Your task to perform on an android device: Open calendar and show me the second week of next month Image 0: 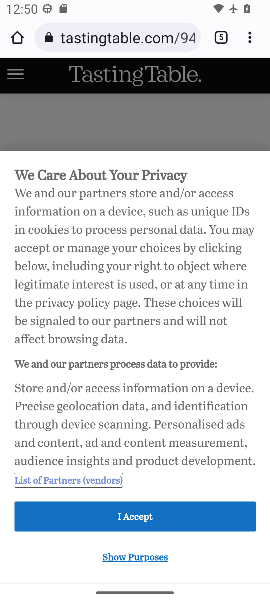
Step 0: press home button
Your task to perform on an android device: Open calendar and show me the second week of next month Image 1: 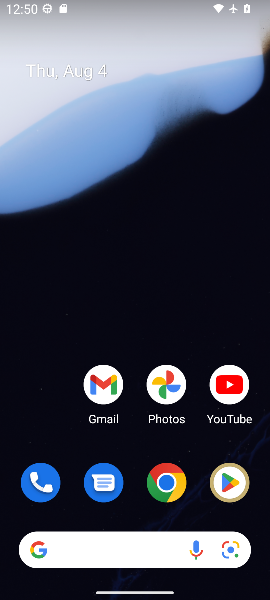
Step 1: drag from (127, 464) to (158, 122)
Your task to perform on an android device: Open calendar and show me the second week of next month Image 2: 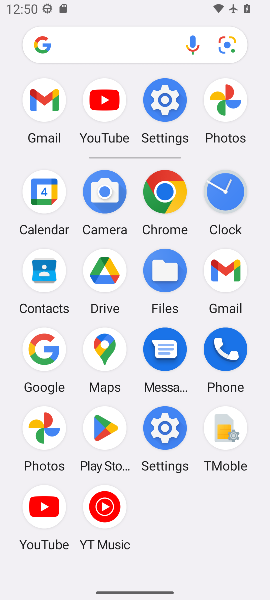
Step 2: click (39, 186)
Your task to perform on an android device: Open calendar and show me the second week of next month Image 3: 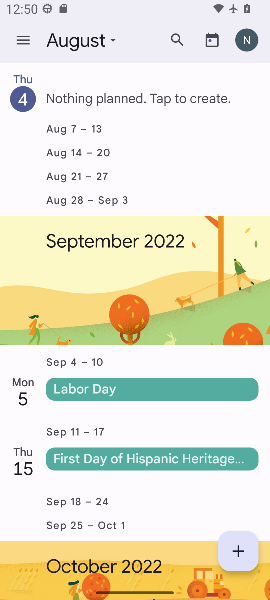
Step 3: click (102, 42)
Your task to perform on an android device: Open calendar and show me the second week of next month Image 4: 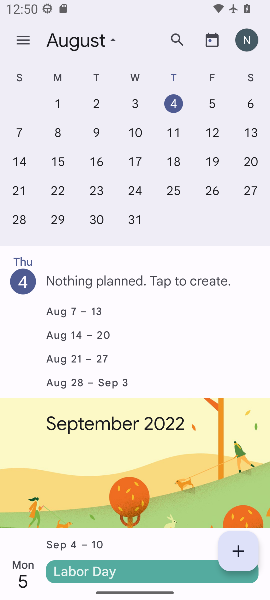
Step 4: drag from (218, 121) to (6, 106)
Your task to perform on an android device: Open calendar and show me the second week of next month Image 5: 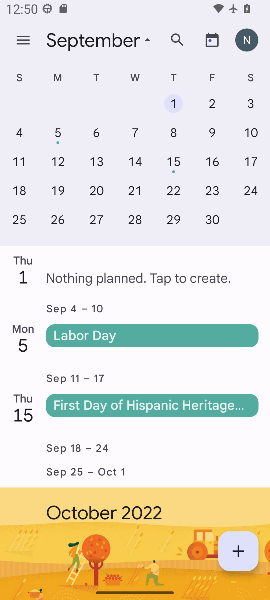
Step 5: click (15, 135)
Your task to perform on an android device: Open calendar and show me the second week of next month Image 6: 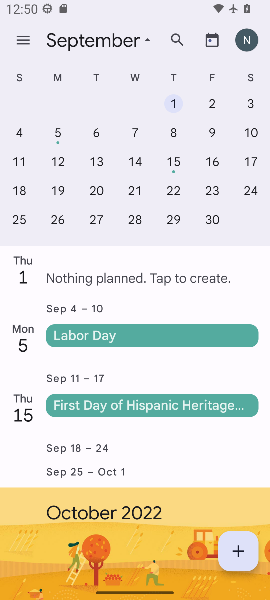
Step 6: task complete